Your task to perform on an android device: What is the news today? Image 0: 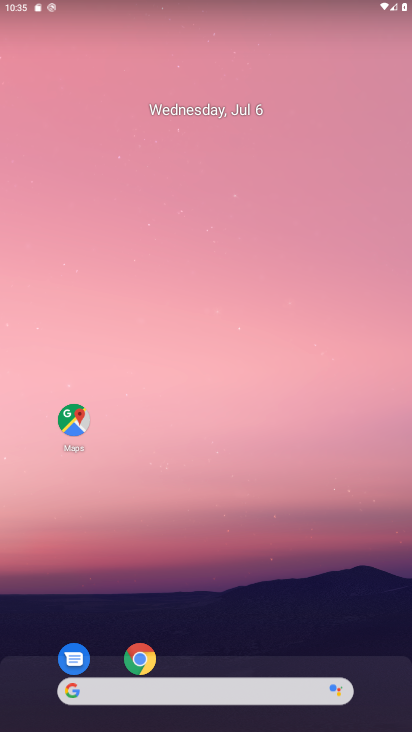
Step 0: drag from (220, 645) to (142, 195)
Your task to perform on an android device: What is the news today? Image 1: 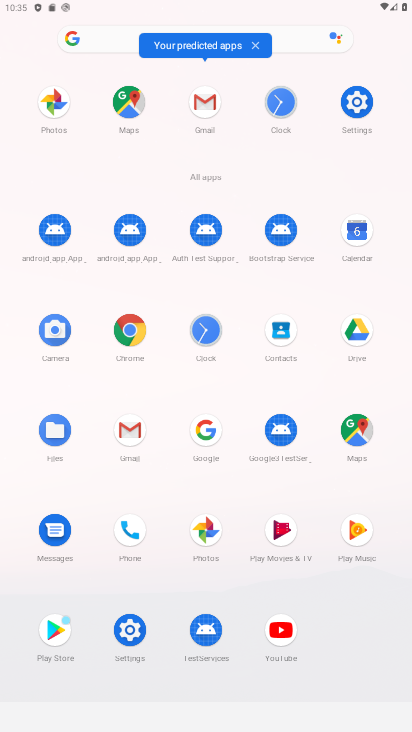
Step 1: click (198, 422)
Your task to perform on an android device: What is the news today? Image 2: 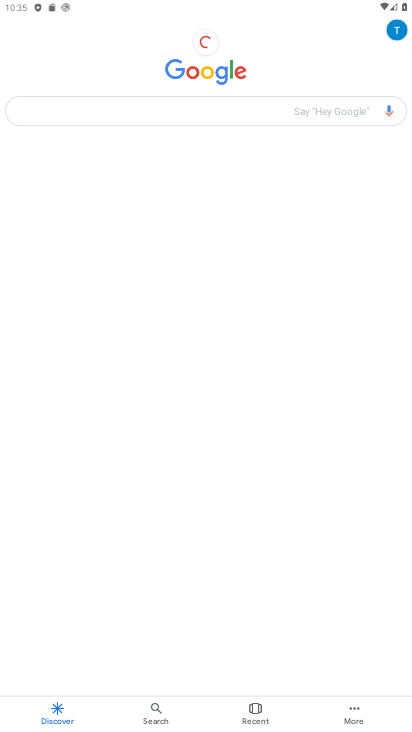
Step 2: click (239, 105)
Your task to perform on an android device: What is the news today? Image 3: 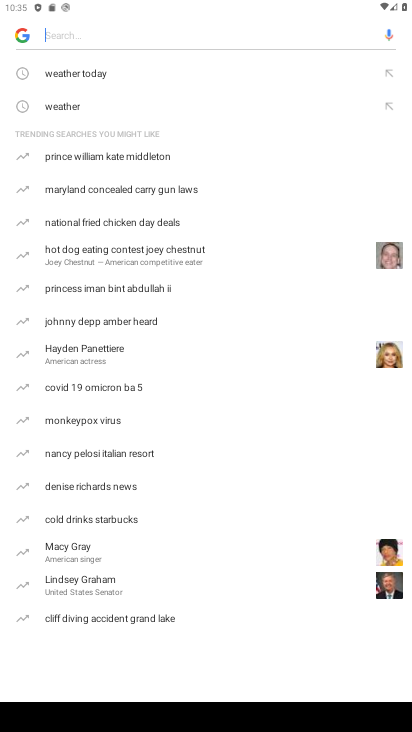
Step 3: type " news"
Your task to perform on an android device: What is the news today? Image 4: 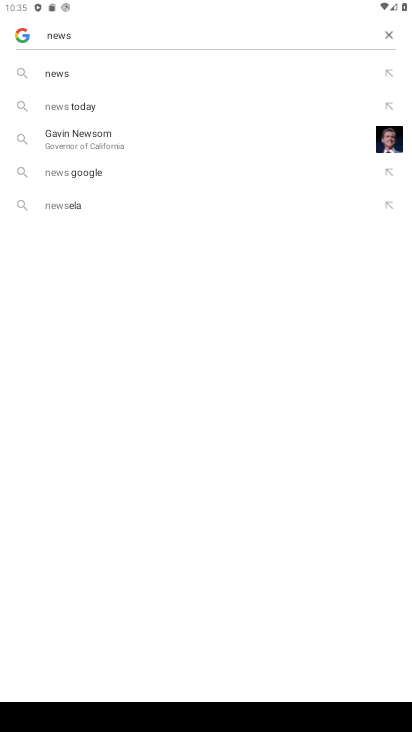
Step 4: click (99, 68)
Your task to perform on an android device: What is the news today? Image 5: 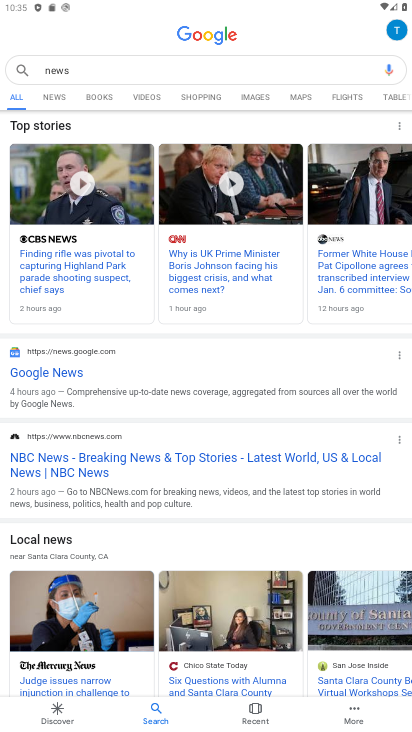
Step 5: click (57, 95)
Your task to perform on an android device: What is the news today? Image 6: 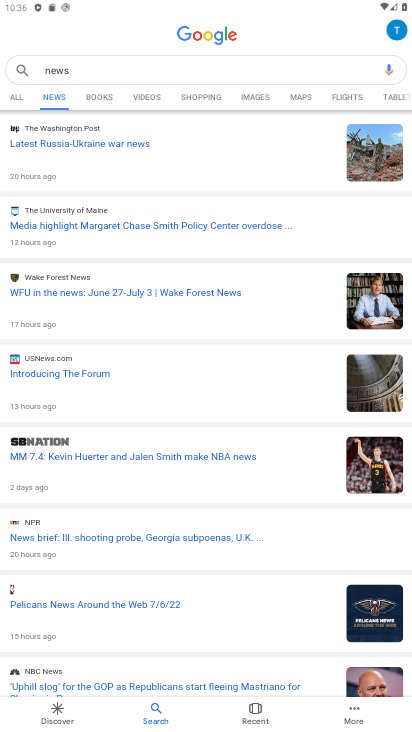
Step 6: task complete